Your task to perform on an android device: turn off improve location accuracy Image 0: 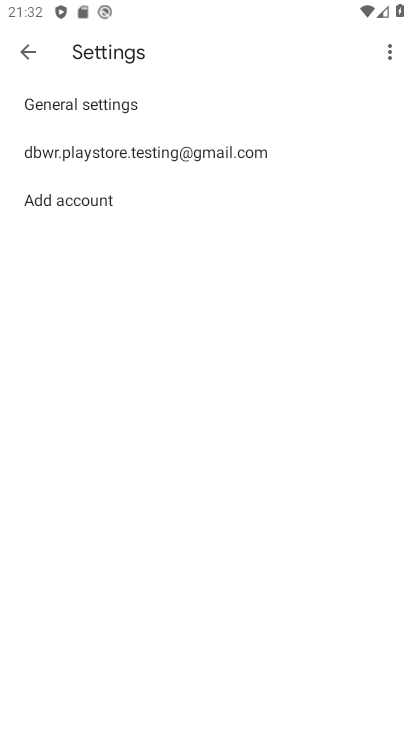
Step 0: press home button
Your task to perform on an android device: turn off improve location accuracy Image 1: 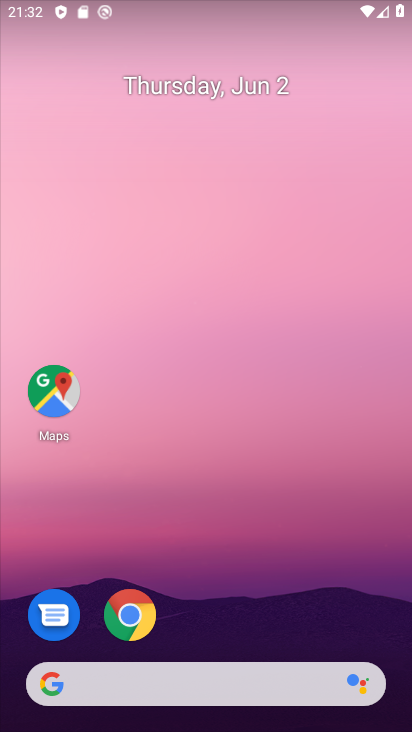
Step 1: drag from (224, 592) to (272, 144)
Your task to perform on an android device: turn off improve location accuracy Image 2: 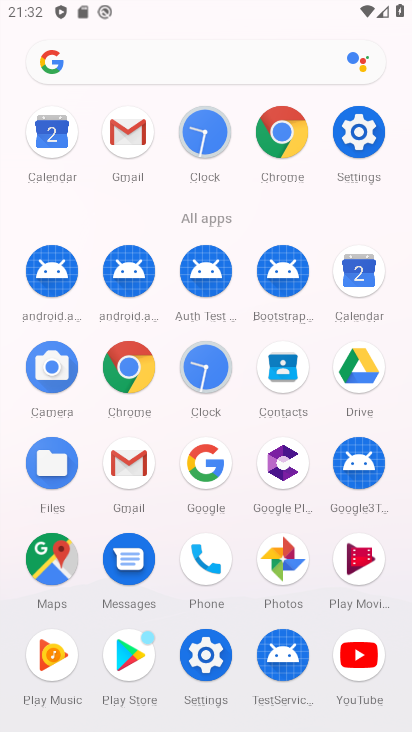
Step 2: click (366, 133)
Your task to perform on an android device: turn off improve location accuracy Image 3: 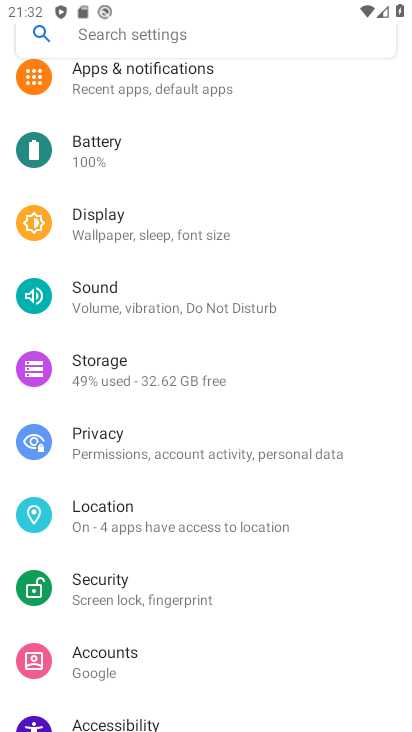
Step 3: click (153, 514)
Your task to perform on an android device: turn off improve location accuracy Image 4: 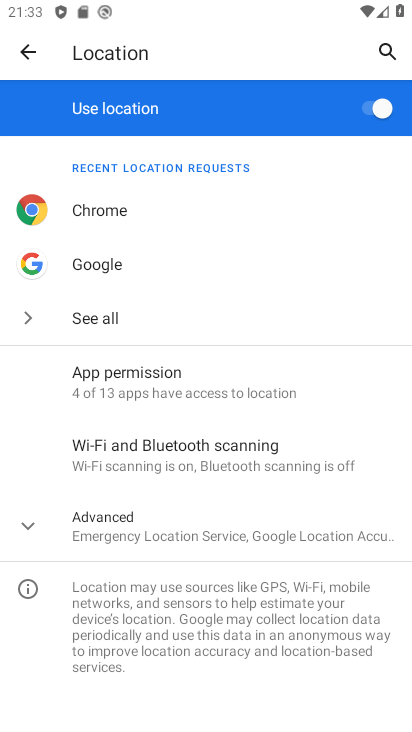
Step 4: click (53, 525)
Your task to perform on an android device: turn off improve location accuracy Image 5: 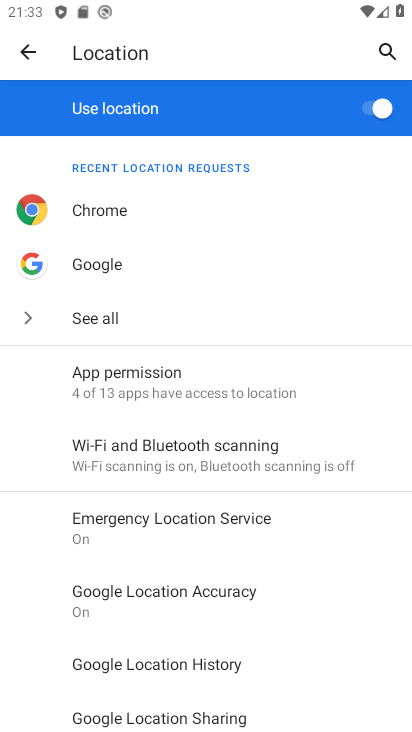
Step 5: drag from (225, 623) to (263, 356)
Your task to perform on an android device: turn off improve location accuracy Image 6: 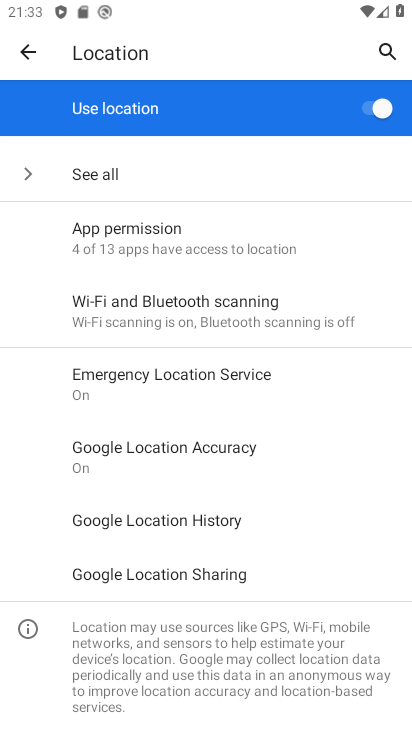
Step 6: click (183, 447)
Your task to perform on an android device: turn off improve location accuracy Image 7: 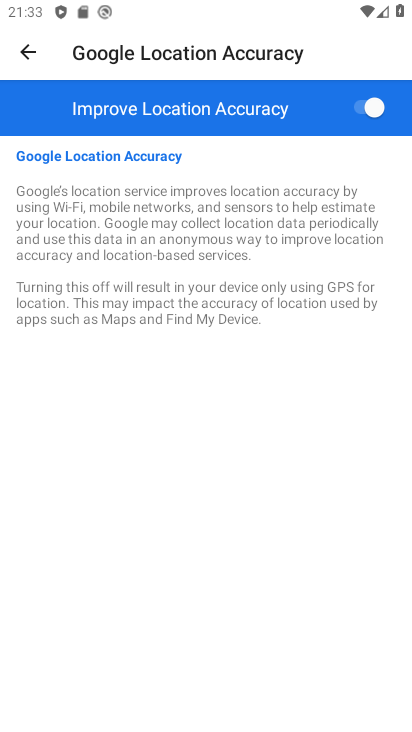
Step 7: click (360, 108)
Your task to perform on an android device: turn off improve location accuracy Image 8: 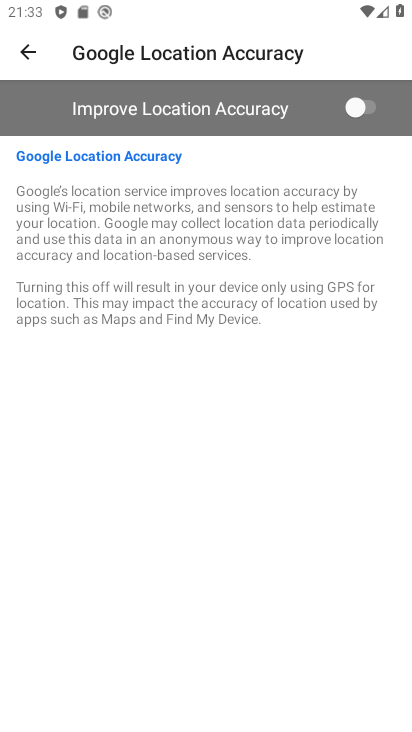
Step 8: task complete